Your task to perform on an android device: Go to location settings Image 0: 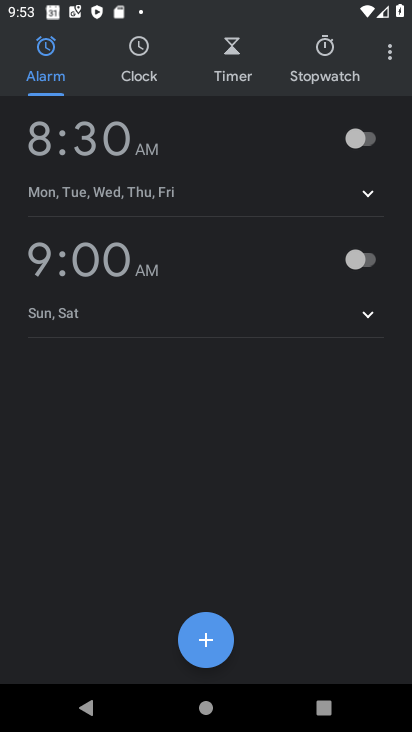
Step 0: press home button
Your task to perform on an android device: Go to location settings Image 1: 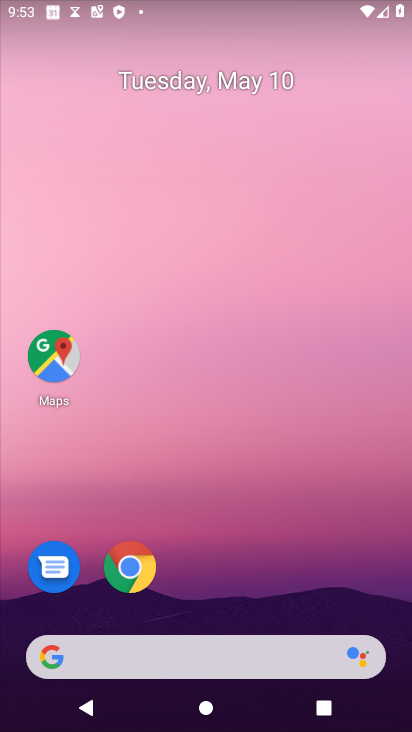
Step 1: drag from (25, 599) to (264, 124)
Your task to perform on an android device: Go to location settings Image 2: 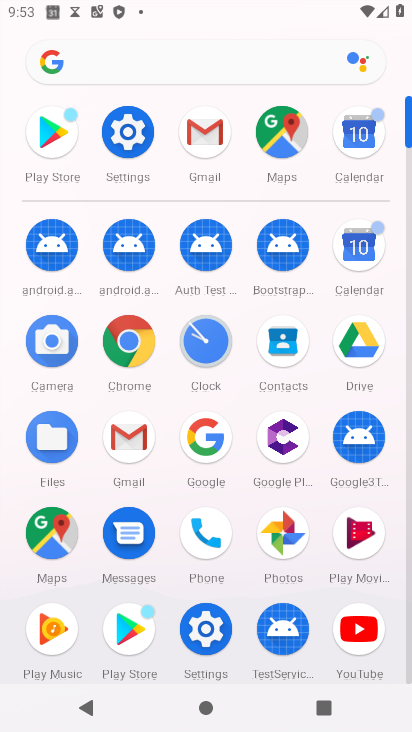
Step 2: click (127, 122)
Your task to perform on an android device: Go to location settings Image 3: 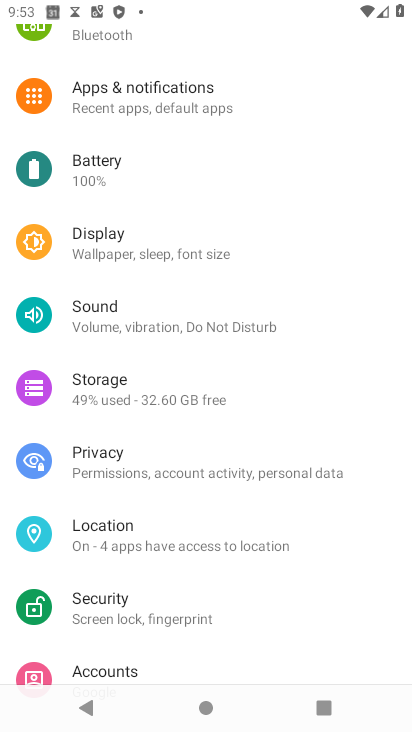
Step 3: click (91, 528)
Your task to perform on an android device: Go to location settings Image 4: 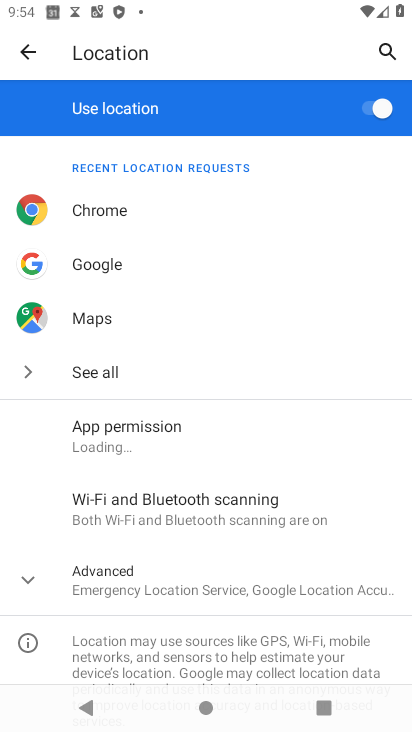
Step 4: drag from (87, 644) to (276, 136)
Your task to perform on an android device: Go to location settings Image 5: 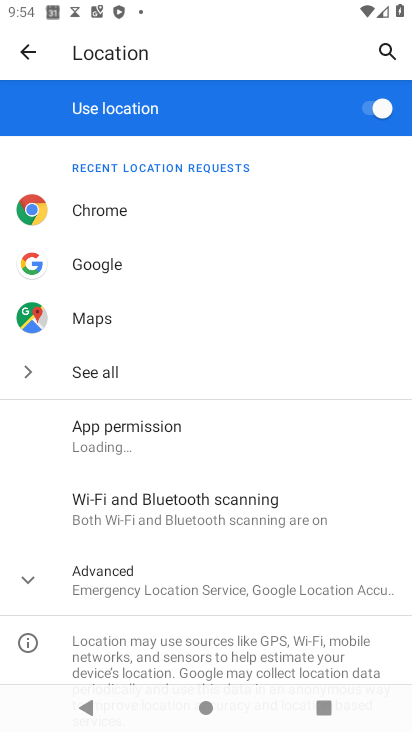
Step 5: click (131, 582)
Your task to perform on an android device: Go to location settings Image 6: 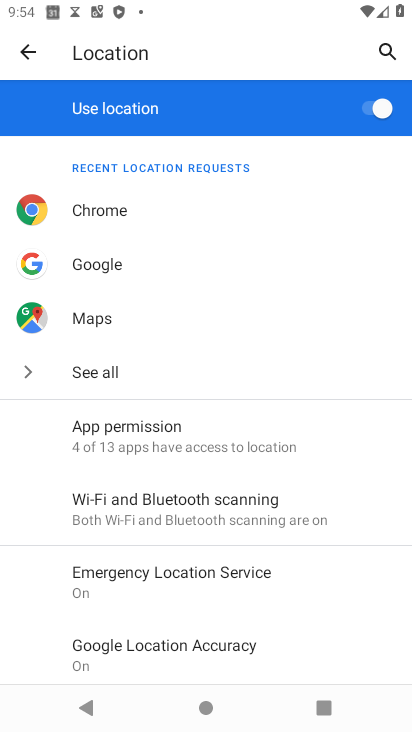
Step 6: task complete